Your task to perform on an android device: turn off smart reply in the gmail app Image 0: 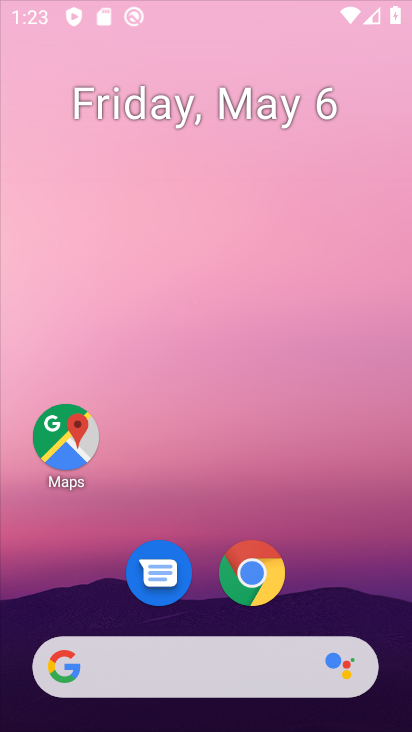
Step 0: click (230, 56)
Your task to perform on an android device: turn off smart reply in the gmail app Image 1: 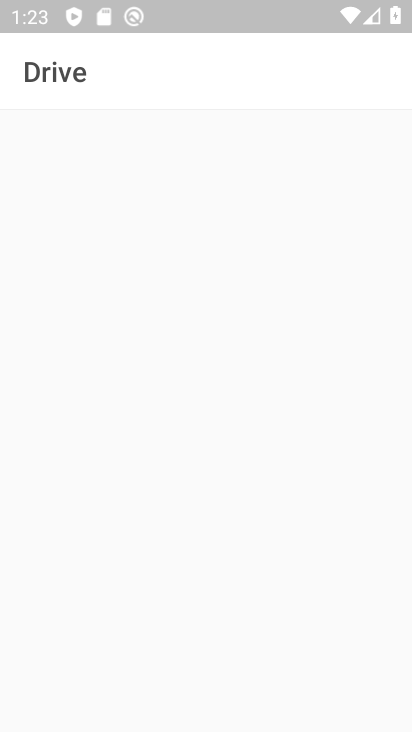
Step 1: drag from (239, 602) to (266, 25)
Your task to perform on an android device: turn off smart reply in the gmail app Image 2: 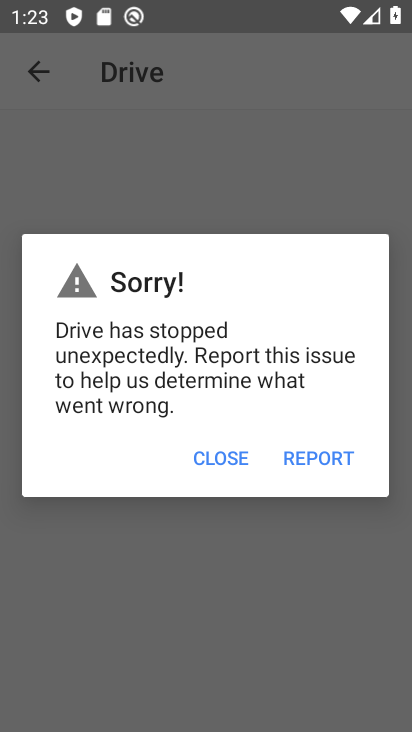
Step 2: press home button
Your task to perform on an android device: turn off smart reply in the gmail app Image 3: 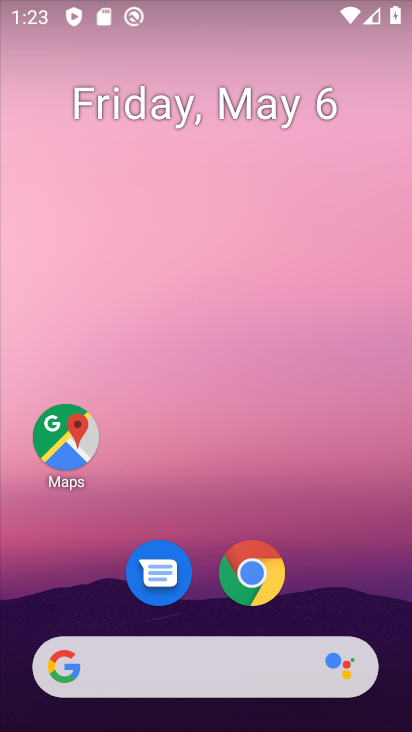
Step 3: drag from (203, 588) to (142, 69)
Your task to perform on an android device: turn off smart reply in the gmail app Image 4: 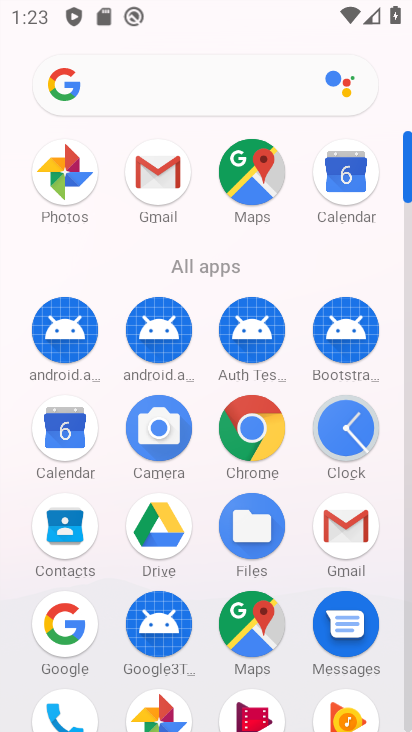
Step 4: click (156, 181)
Your task to perform on an android device: turn off smart reply in the gmail app Image 5: 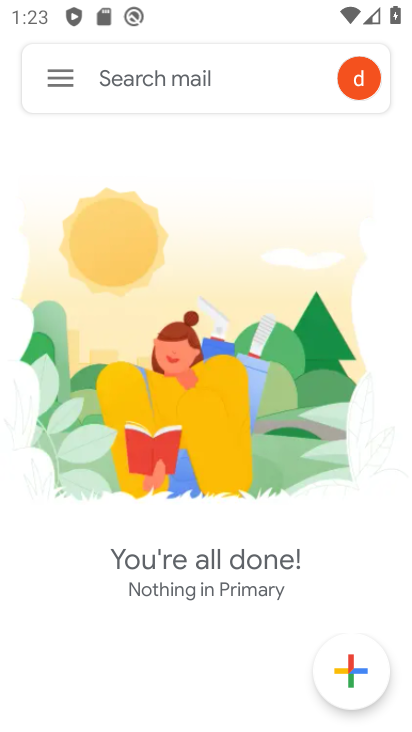
Step 5: click (68, 76)
Your task to perform on an android device: turn off smart reply in the gmail app Image 6: 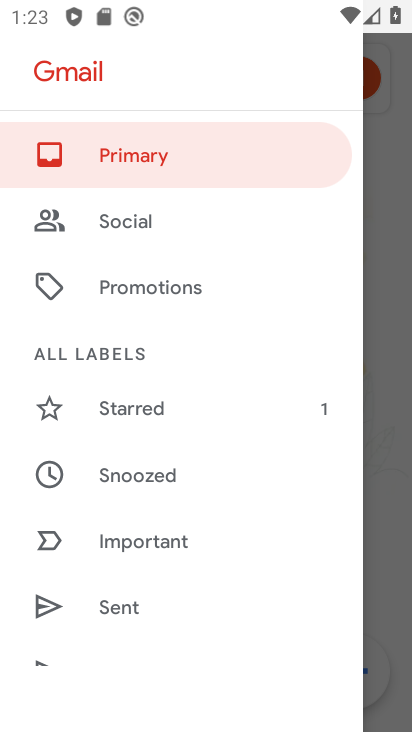
Step 6: drag from (174, 591) to (183, 83)
Your task to perform on an android device: turn off smart reply in the gmail app Image 7: 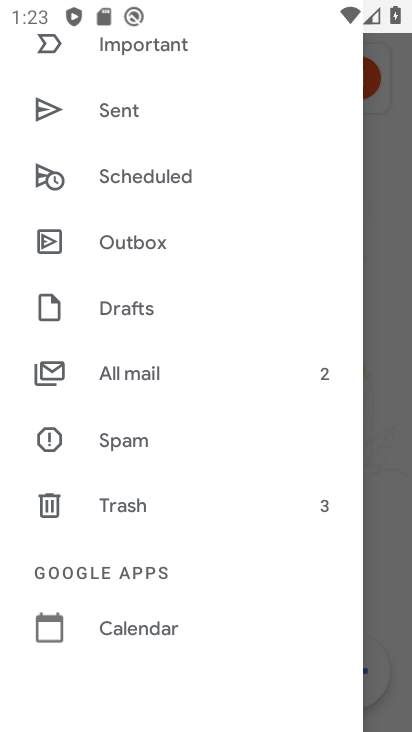
Step 7: drag from (219, 526) to (194, 161)
Your task to perform on an android device: turn off smart reply in the gmail app Image 8: 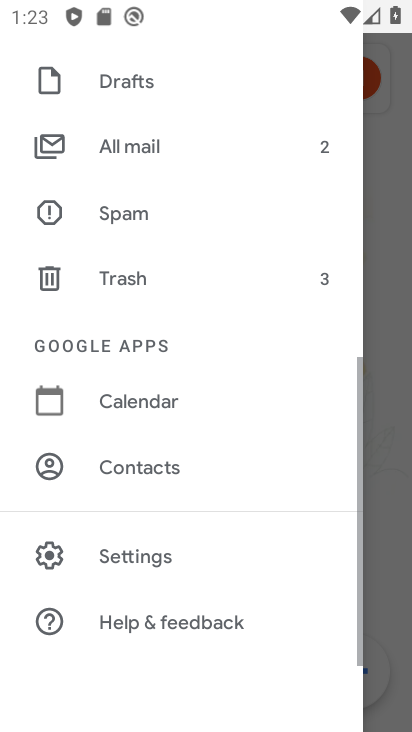
Step 8: click (154, 561)
Your task to perform on an android device: turn off smart reply in the gmail app Image 9: 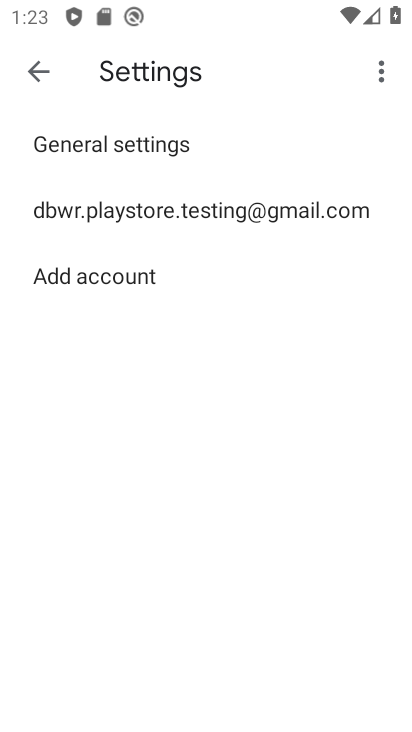
Step 9: click (101, 215)
Your task to perform on an android device: turn off smart reply in the gmail app Image 10: 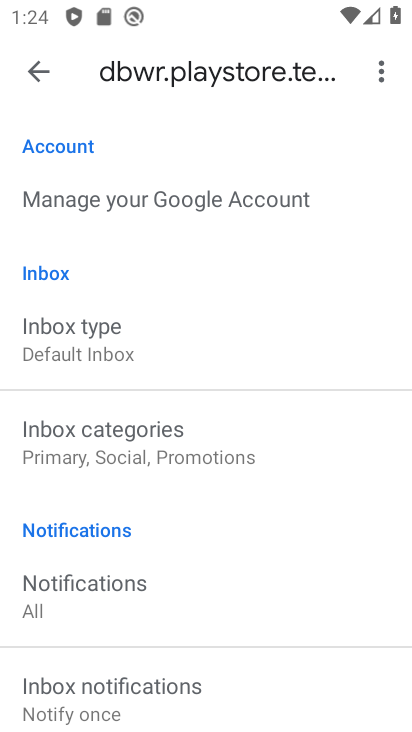
Step 10: drag from (234, 569) to (221, 216)
Your task to perform on an android device: turn off smart reply in the gmail app Image 11: 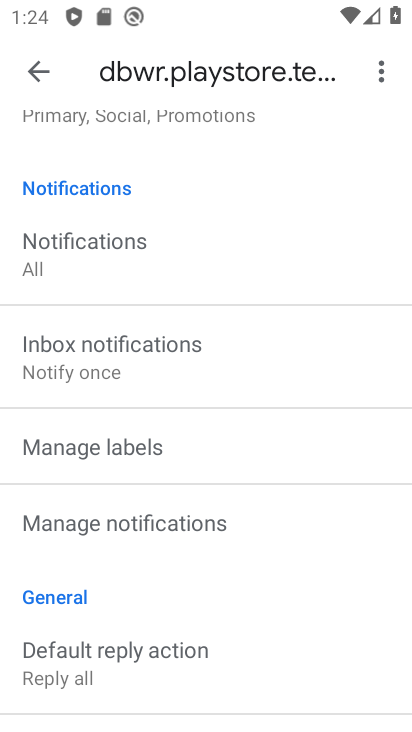
Step 11: drag from (216, 611) to (159, 288)
Your task to perform on an android device: turn off smart reply in the gmail app Image 12: 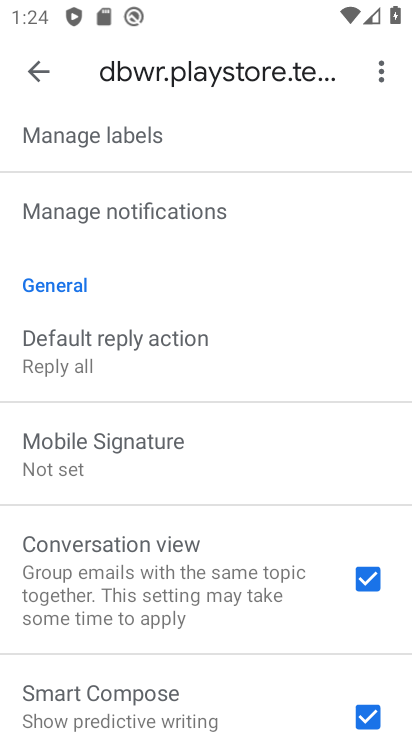
Step 12: drag from (221, 700) to (206, 354)
Your task to perform on an android device: turn off smart reply in the gmail app Image 13: 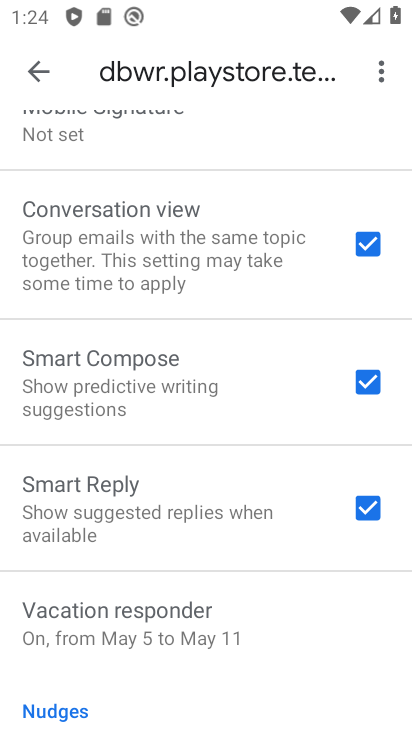
Step 13: click (368, 515)
Your task to perform on an android device: turn off smart reply in the gmail app Image 14: 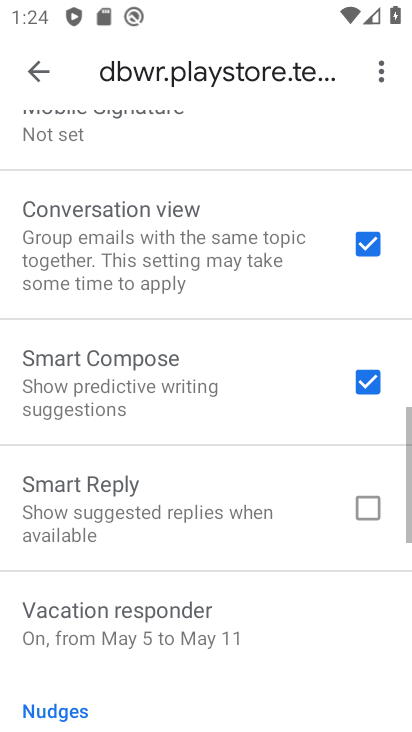
Step 14: task complete